Your task to perform on an android device: Go to CNN.com Image 0: 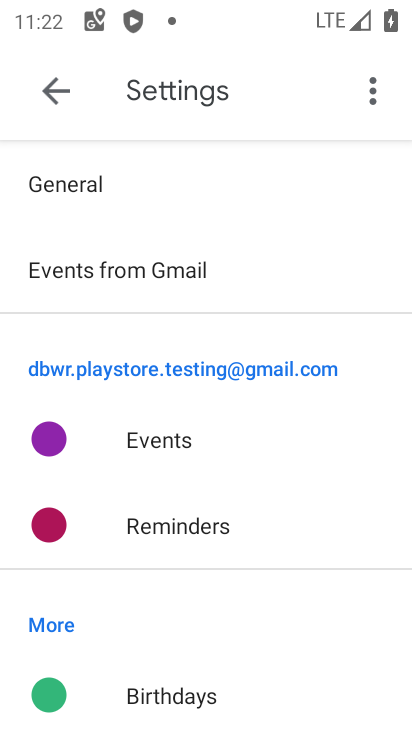
Step 0: click (50, 94)
Your task to perform on an android device: Go to CNN.com Image 1: 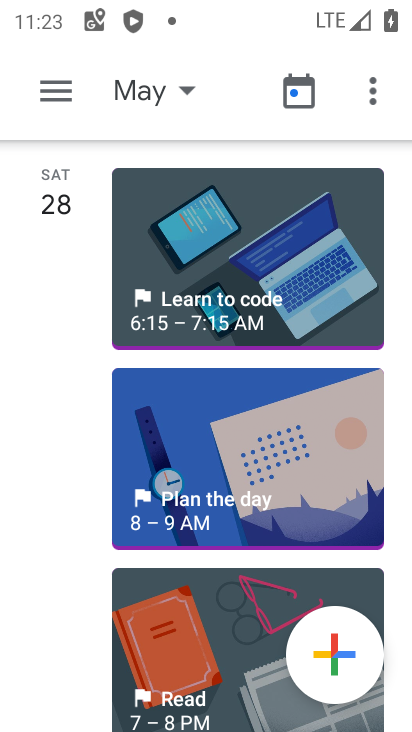
Step 1: press back button
Your task to perform on an android device: Go to CNN.com Image 2: 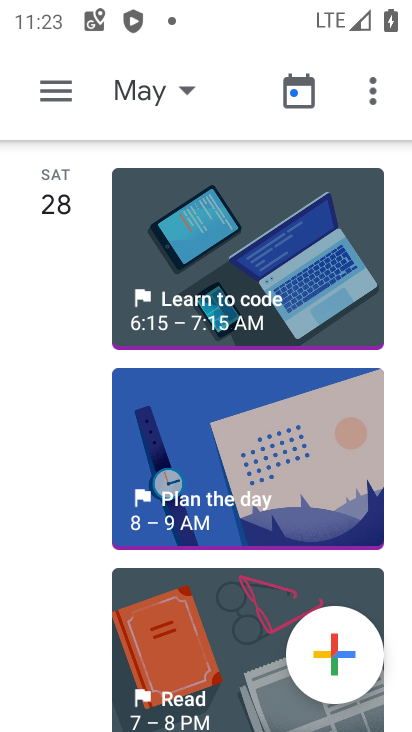
Step 2: press back button
Your task to perform on an android device: Go to CNN.com Image 3: 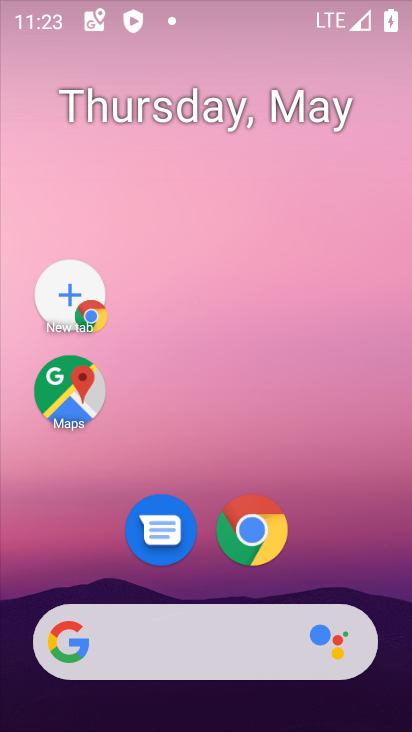
Step 3: press home button
Your task to perform on an android device: Go to CNN.com Image 4: 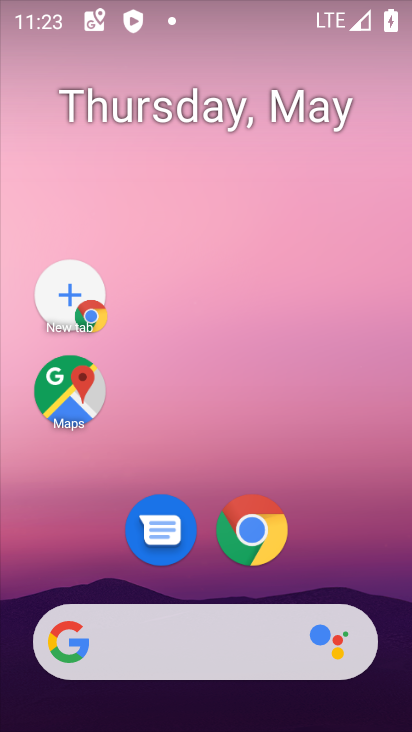
Step 4: drag from (390, 662) to (235, 58)
Your task to perform on an android device: Go to CNN.com Image 5: 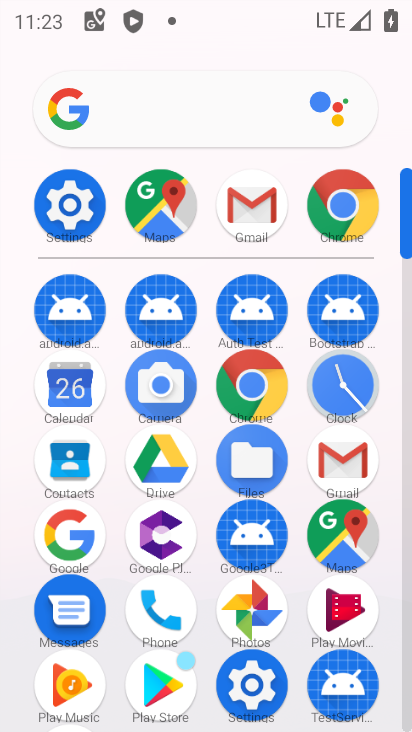
Step 5: click (354, 200)
Your task to perform on an android device: Go to CNN.com Image 6: 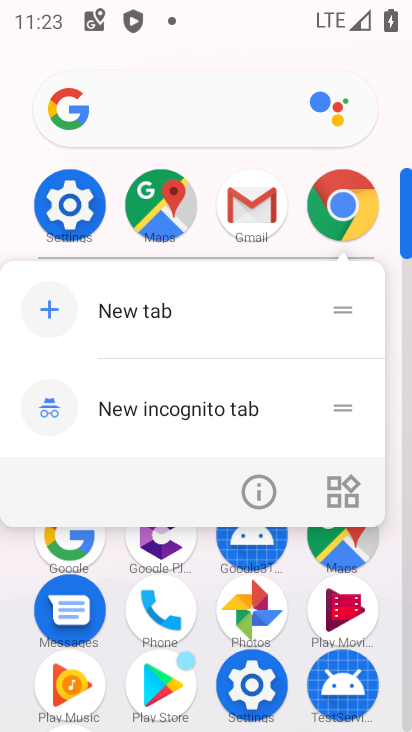
Step 6: click (318, 191)
Your task to perform on an android device: Go to CNN.com Image 7: 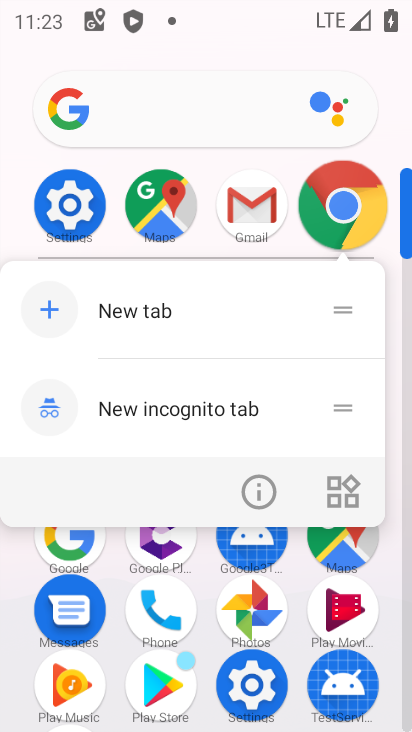
Step 7: click (349, 204)
Your task to perform on an android device: Go to CNN.com Image 8: 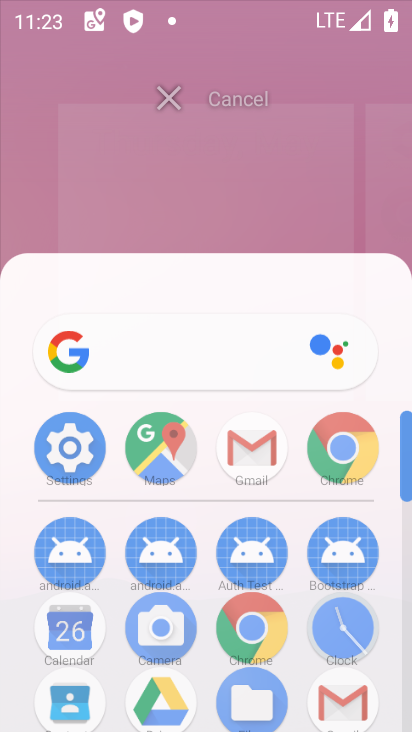
Step 8: click (340, 214)
Your task to perform on an android device: Go to CNN.com Image 9: 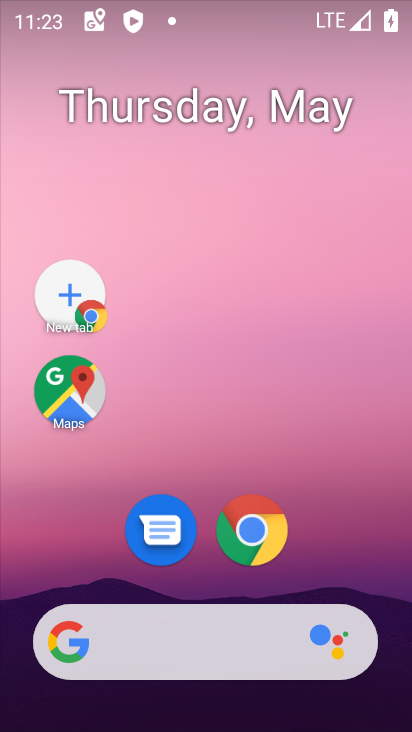
Step 9: click (232, 535)
Your task to perform on an android device: Go to CNN.com Image 10: 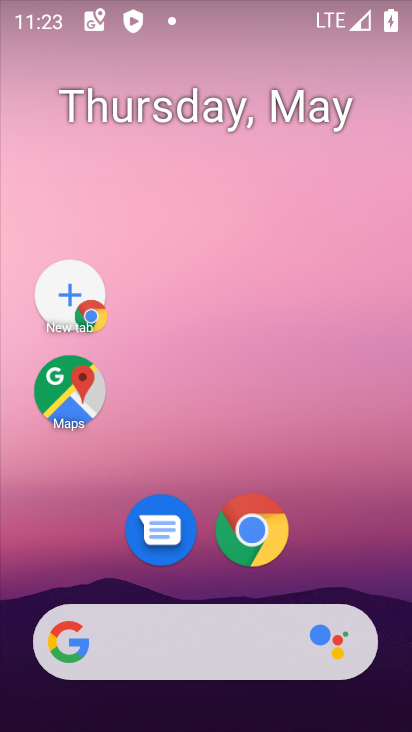
Step 10: click (232, 527)
Your task to perform on an android device: Go to CNN.com Image 11: 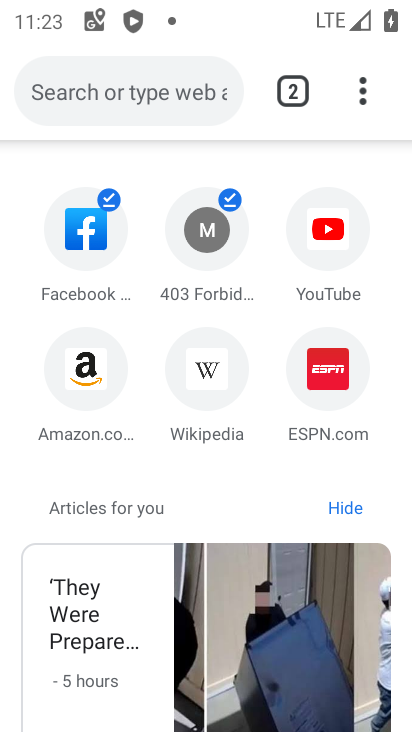
Step 11: click (112, 101)
Your task to perform on an android device: Go to CNN.com Image 12: 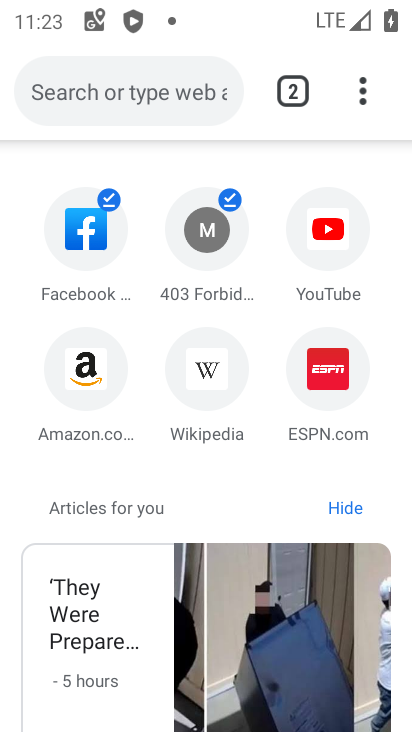
Step 12: click (112, 101)
Your task to perform on an android device: Go to CNN.com Image 13: 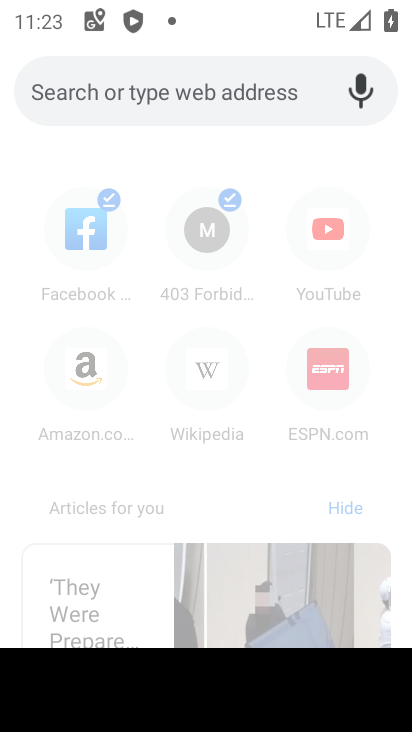
Step 13: type "cnn.com"
Your task to perform on an android device: Go to CNN.com Image 14: 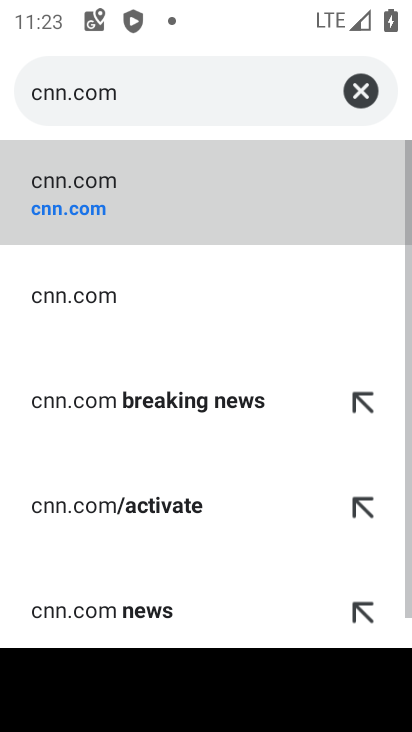
Step 14: click (69, 203)
Your task to perform on an android device: Go to CNN.com Image 15: 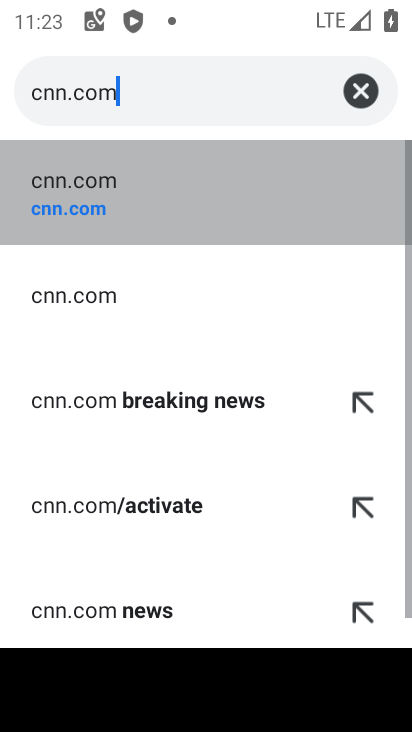
Step 15: click (74, 196)
Your task to perform on an android device: Go to CNN.com Image 16: 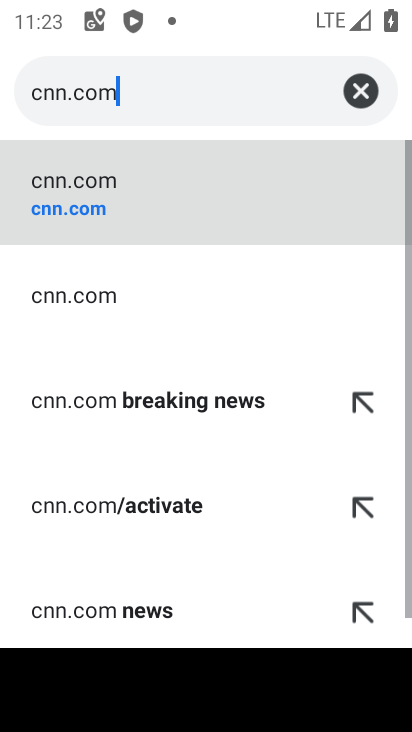
Step 16: click (74, 196)
Your task to perform on an android device: Go to CNN.com Image 17: 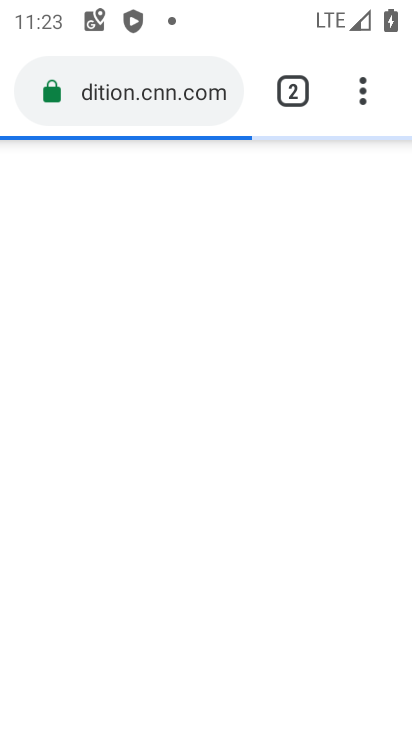
Step 17: task complete